Your task to perform on an android device: What's the weather going to be this weekend? Image 0: 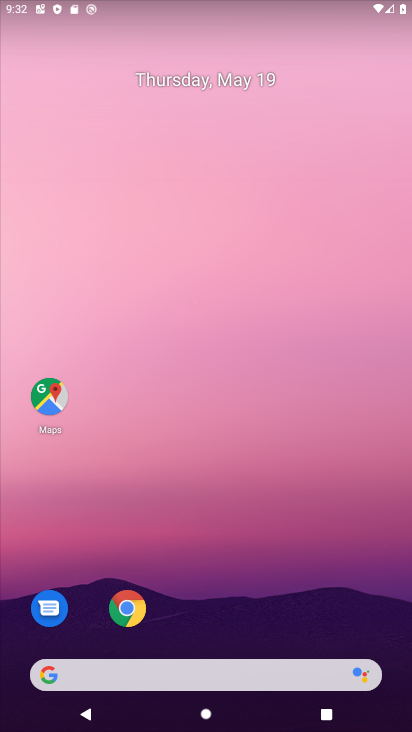
Step 0: press home button
Your task to perform on an android device: What's the weather going to be this weekend? Image 1: 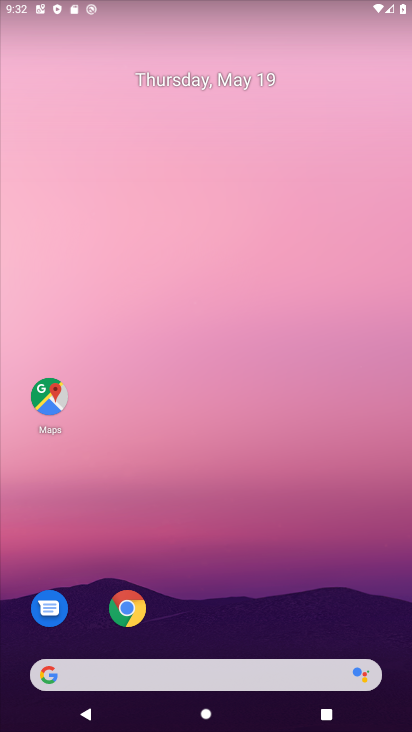
Step 1: click (126, 614)
Your task to perform on an android device: What's the weather going to be this weekend? Image 2: 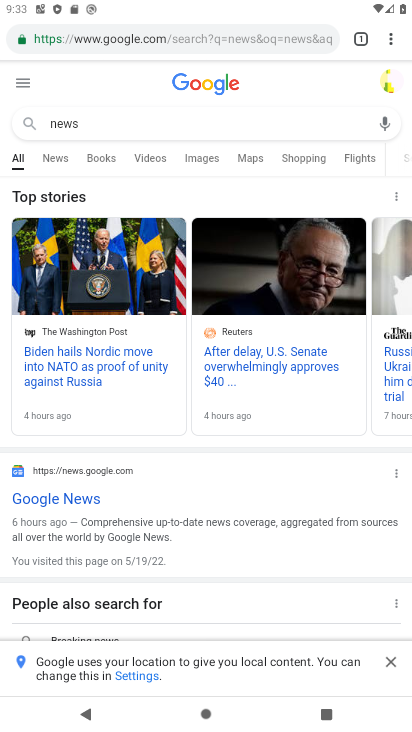
Step 2: click (281, 40)
Your task to perform on an android device: What's the weather going to be this weekend? Image 3: 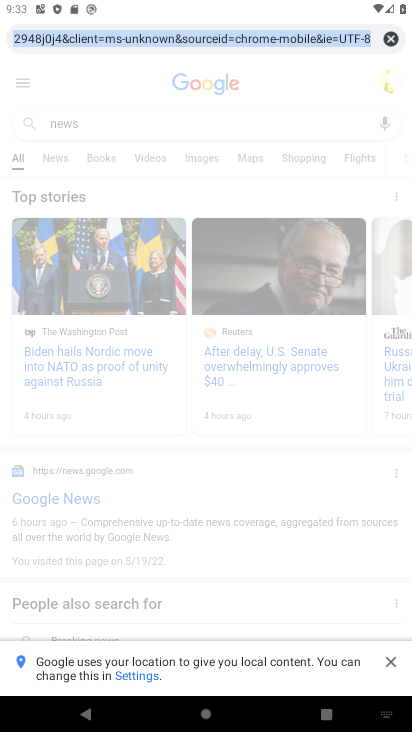
Step 3: type "What's the weather going to be this weekend?"
Your task to perform on an android device: What's the weather going to be this weekend? Image 4: 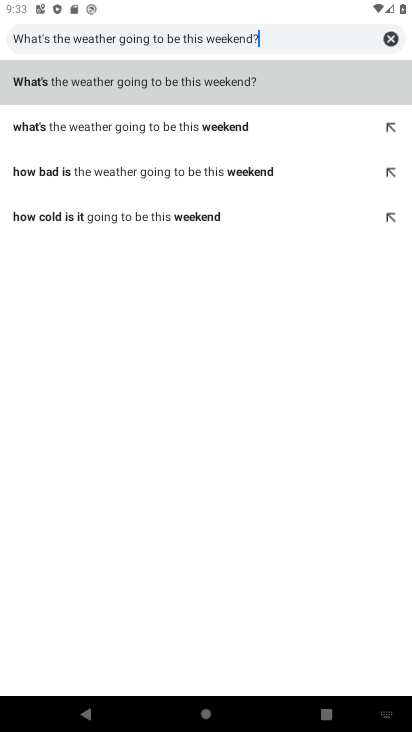
Step 4: click (150, 86)
Your task to perform on an android device: What's the weather going to be this weekend? Image 5: 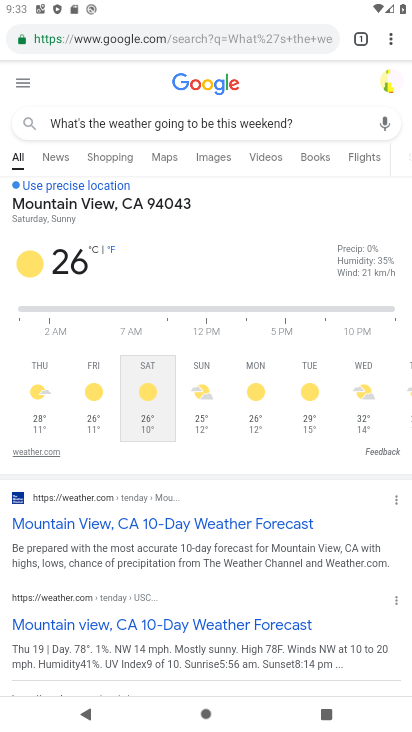
Step 5: task complete